Your task to perform on an android device: see sites visited before in the chrome app Image 0: 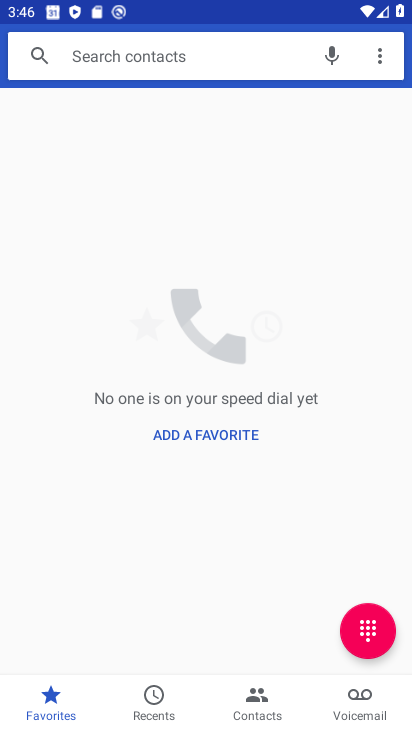
Step 0: press home button
Your task to perform on an android device: see sites visited before in the chrome app Image 1: 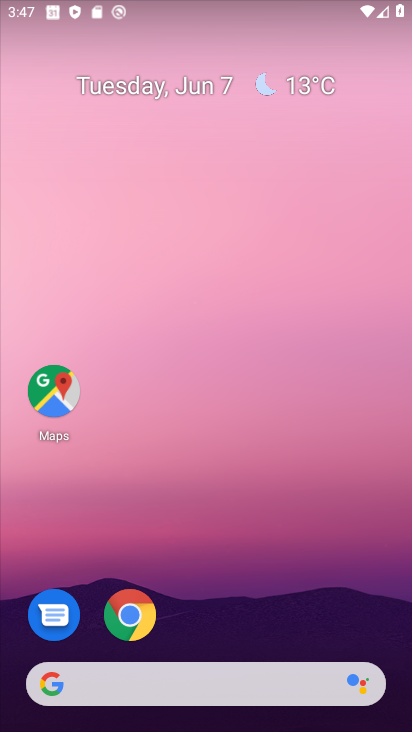
Step 1: click (126, 622)
Your task to perform on an android device: see sites visited before in the chrome app Image 2: 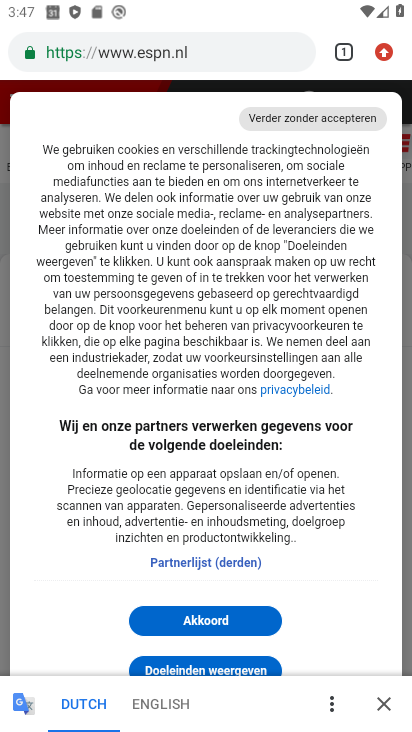
Step 2: click (381, 55)
Your task to perform on an android device: see sites visited before in the chrome app Image 3: 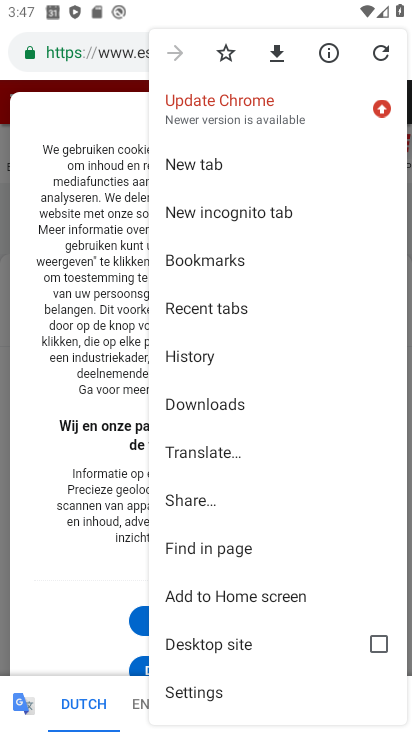
Step 3: click (191, 356)
Your task to perform on an android device: see sites visited before in the chrome app Image 4: 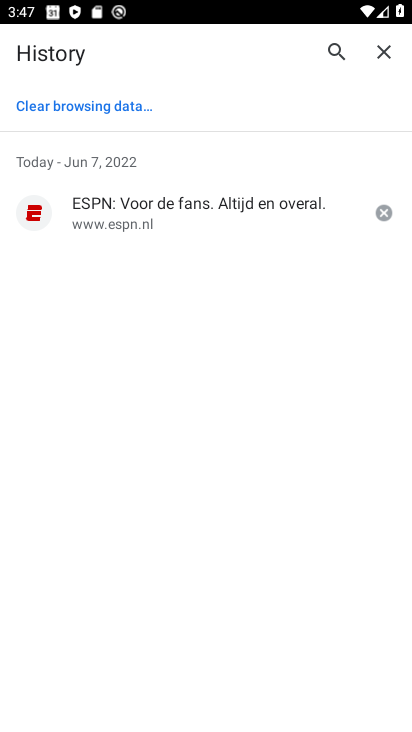
Step 4: task complete